Your task to perform on an android device: turn on bluetooth scan Image 0: 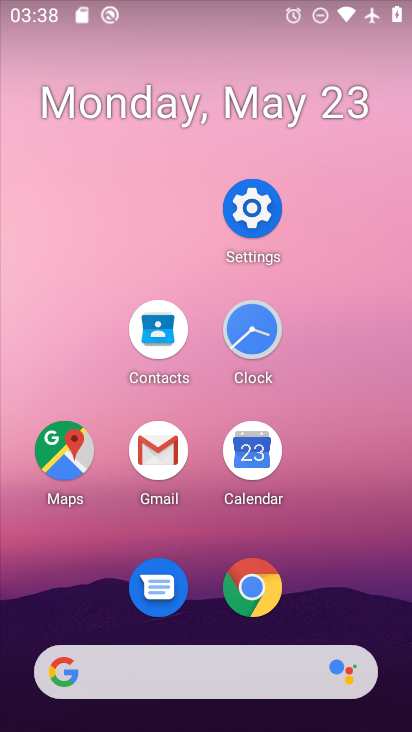
Step 0: click (396, 628)
Your task to perform on an android device: turn on bluetooth scan Image 1: 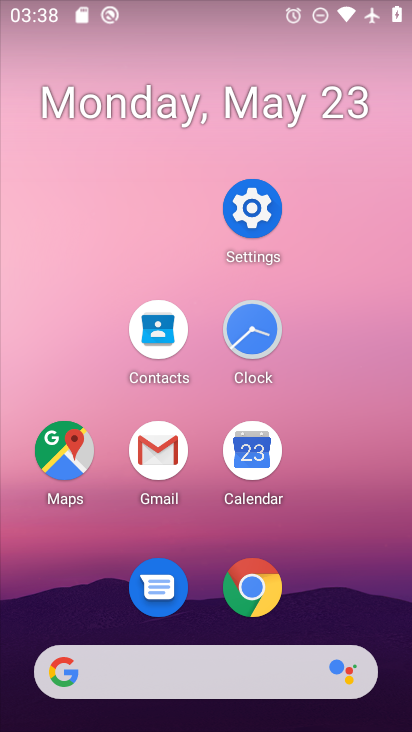
Step 1: click (278, 219)
Your task to perform on an android device: turn on bluetooth scan Image 2: 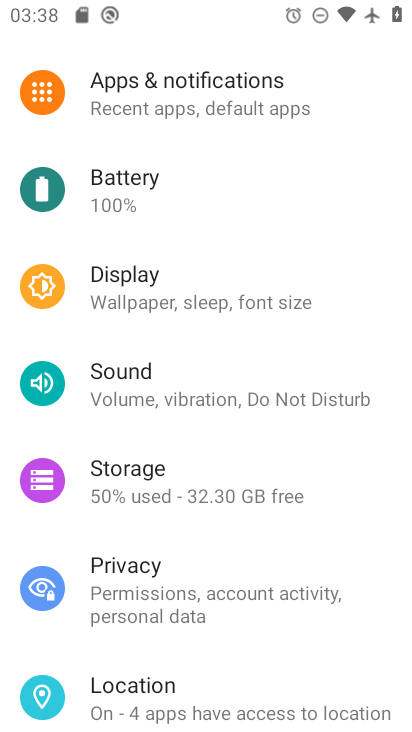
Step 2: click (182, 721)
Your task to perform on an android device: turn on bluetooth scan Image 3: 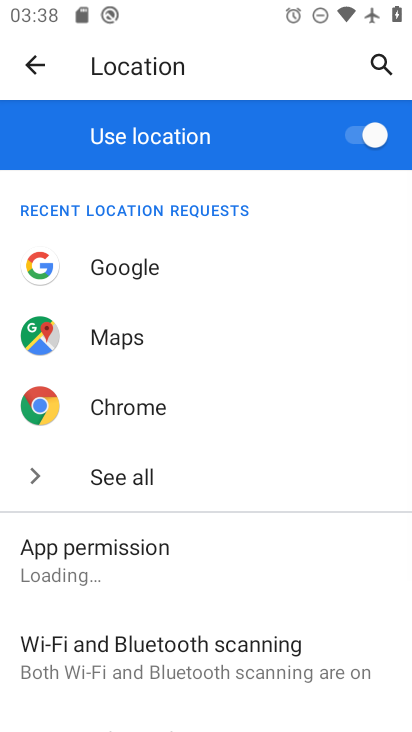
Step 3: click (226, 644)
Your task to perform on an android device: turn on bluetooth scan Image 4: 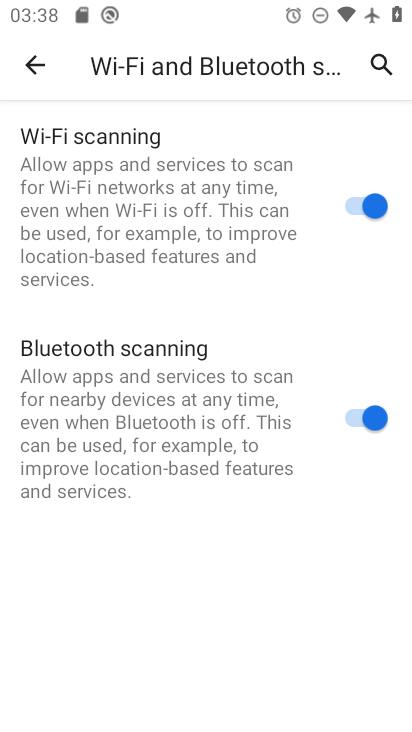
Step 4: task complete